Your task to perform on an android device: Go to Yahoo.com Image 0: 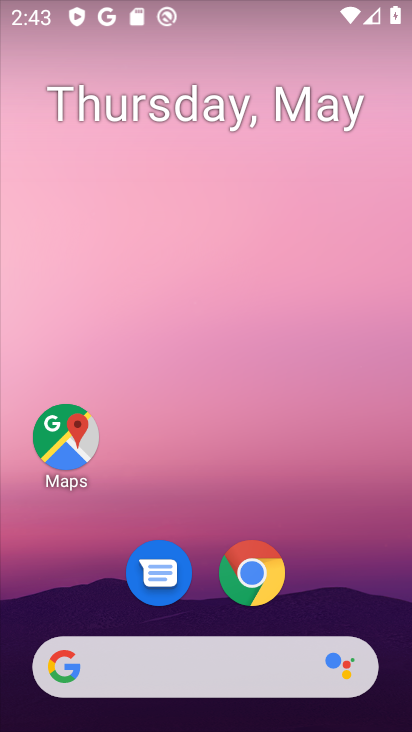
Step 0: click (262, 578)
Your task to perform on an android device: Go to Yahoo.com Image 1: 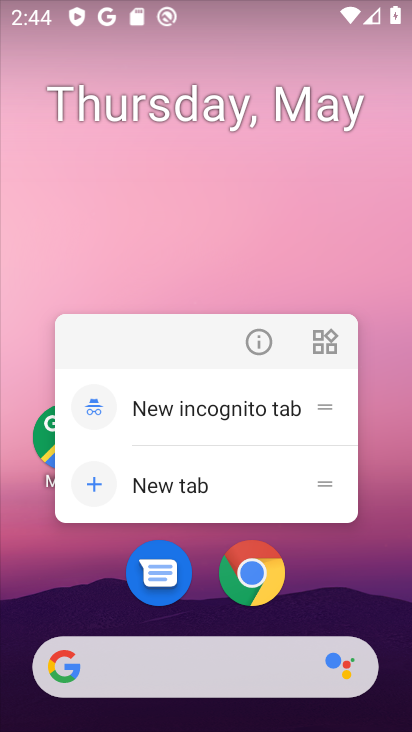
Step 1: click (262, 578)
Your task to perform on an android device: Go to Yahoo.com Image 2: 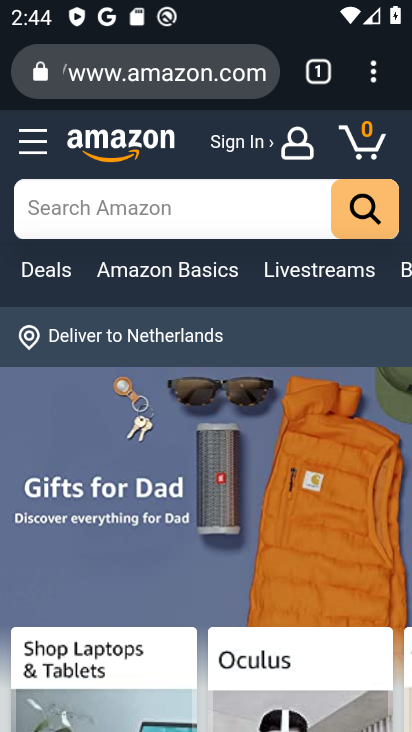
Step 2: drag from (379, 79) to (334, 124)
Your task to perform on an android device: Go to Yahoo.com Image 3: 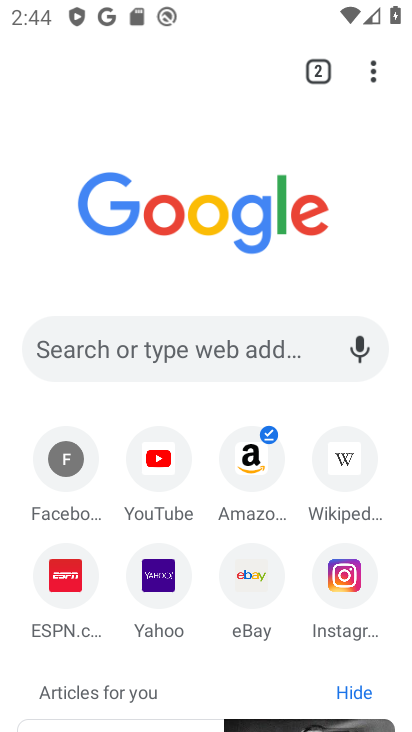
Step 3: click (157, 591)
Your task to perform on an android device: Go to Yahoo.com Image 4: 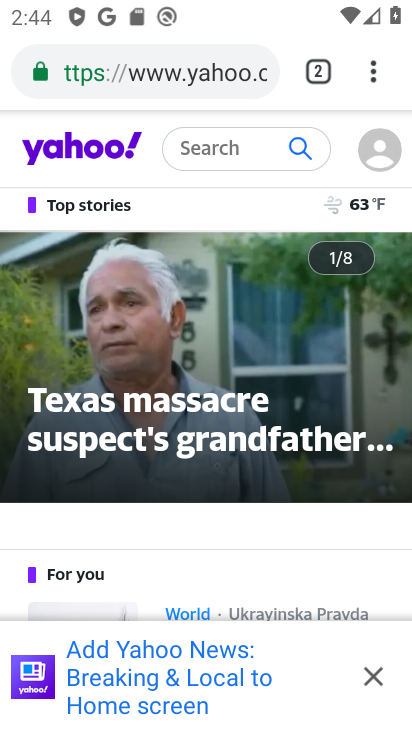
Step 4: click (378, 674)
Your task to perform on an android device: Go to Yahoo.com Image 5: 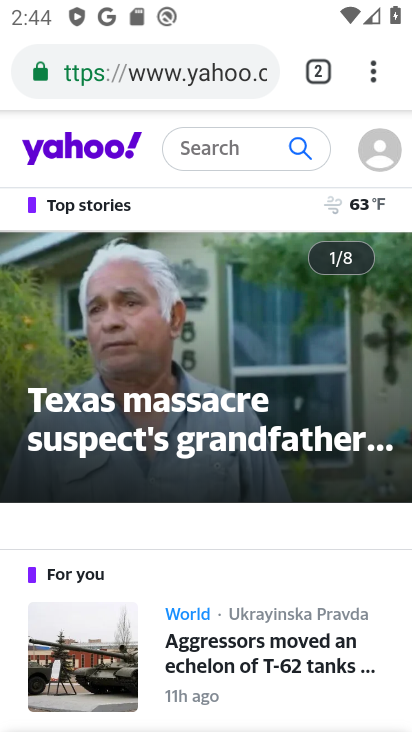
Step 5: task complete